Your task to perform on an android device: turn pop-ups off in chrome Image 0: 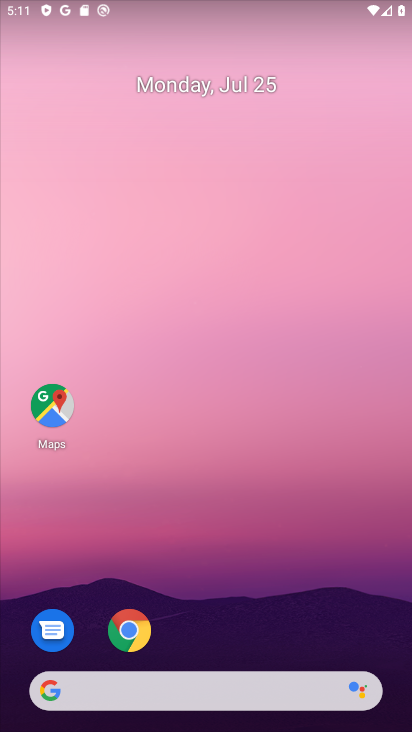
Step 0: click (126, 624)
Your task to perform on an android device: turn pop-ups off in chrome Image 1: 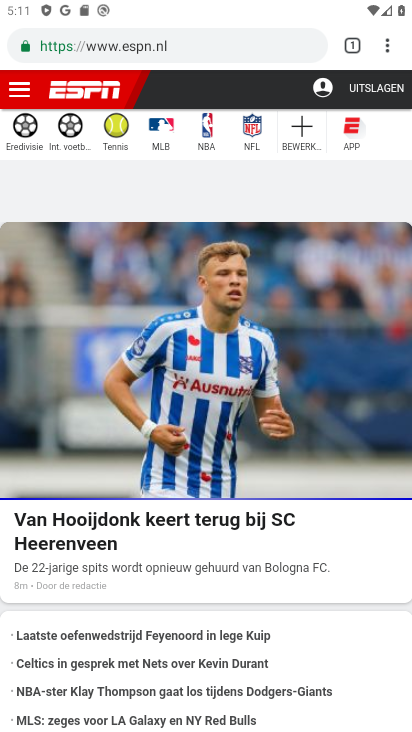
Step 1: click (386, 42)
Your task to perform on an android device: turn pop-ups off in chrome Image 2: 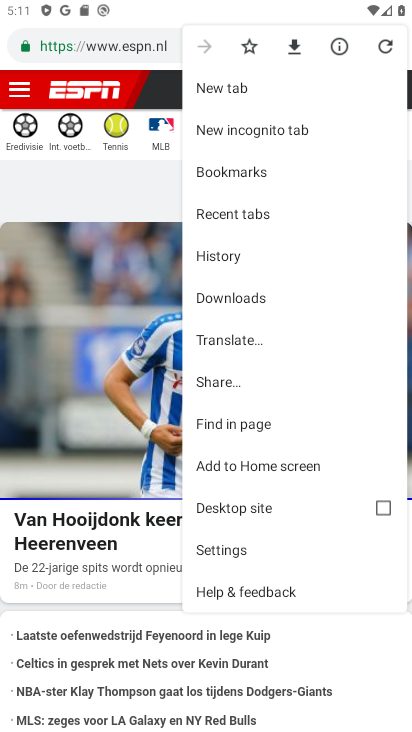
Step 2: click (247, 544)
Your task to perform on an android device: turn pop-ups off in chrome Image 3: 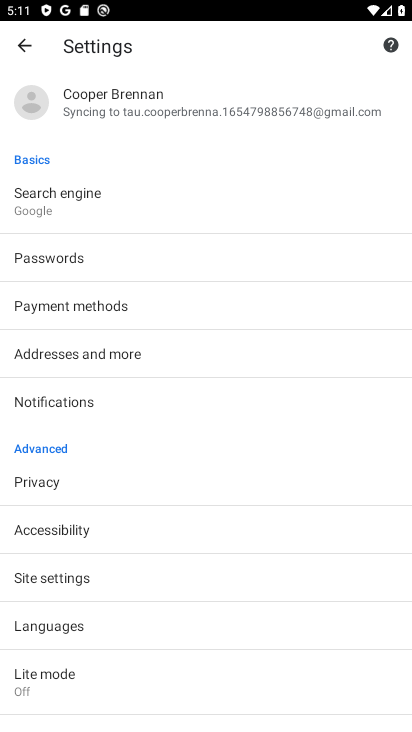
Step 3: click (104, 572)
Your task to perform on an android device: turn pop-ups off in chrome Image 4: 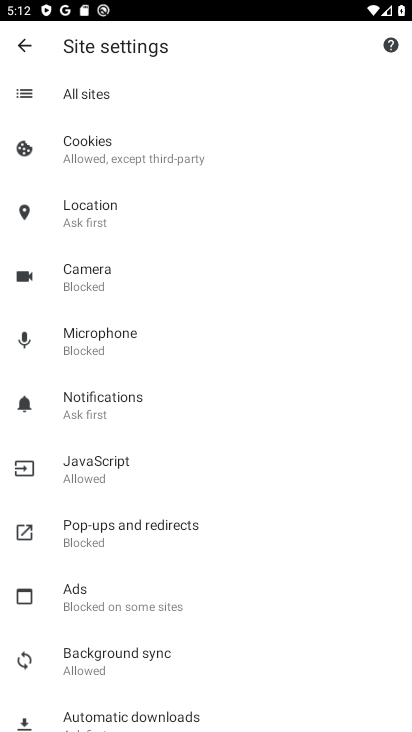
Step 4: click (130, 538)
Your task to perform on an android device: turn pop-ups off in chrome Image 5: 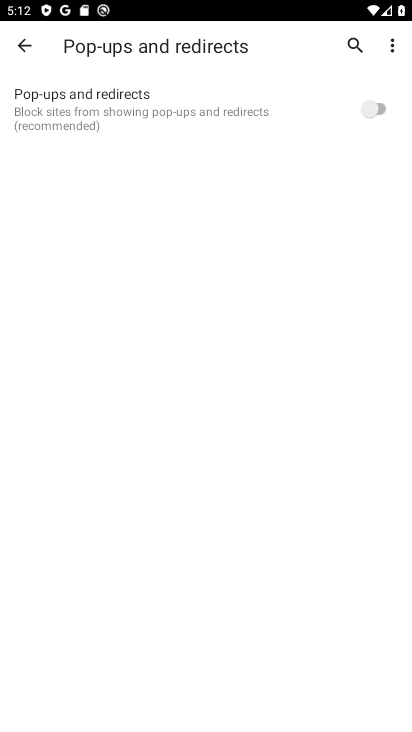
Step 5: click (370, 107)
Your task to perform on an android device: turn pop-ups off in chrome Image 6: 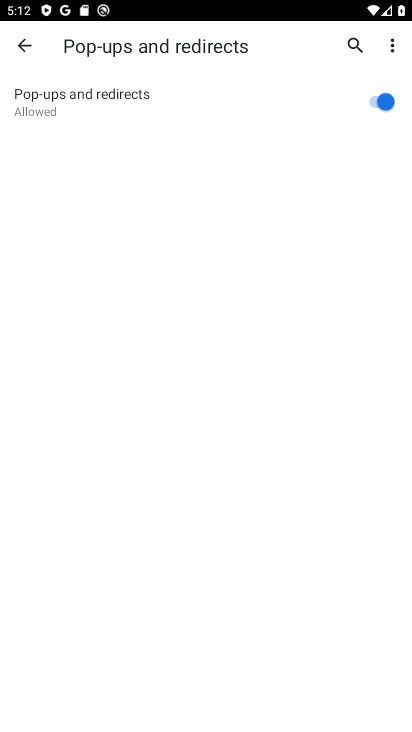
Step 6: task complete